Your task to perform on an android device: Open Maps and search for coffee Image 0: 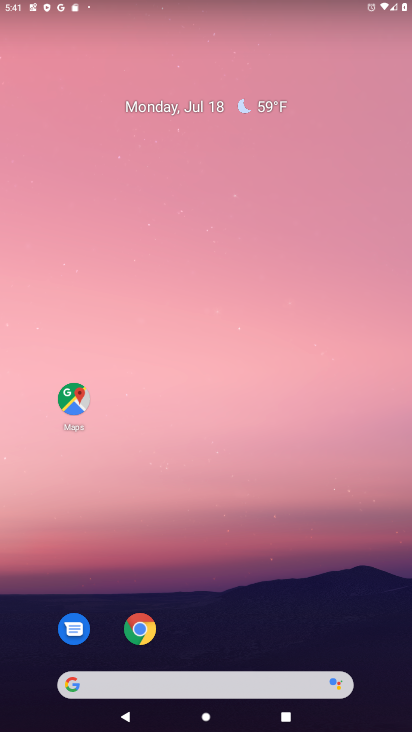
Step 0: drag from (253, 569) to (194, 58)
Your task to perform on an android device: Open Maps and search for coffee Image 1: 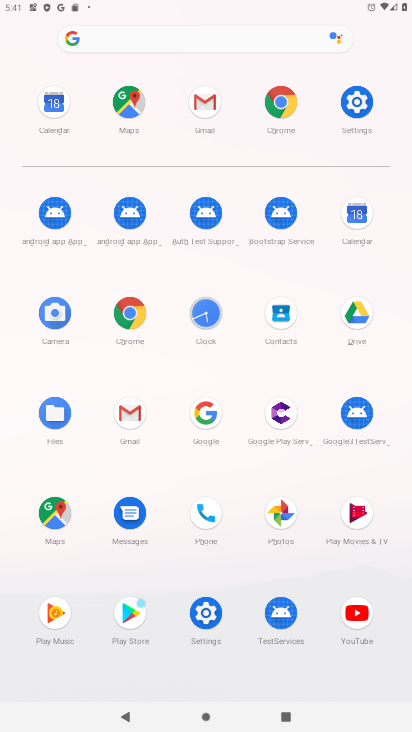
Step 1: click (124, 98)
Your task to perform on an android device: Open Maps and search for coffee Image 2: 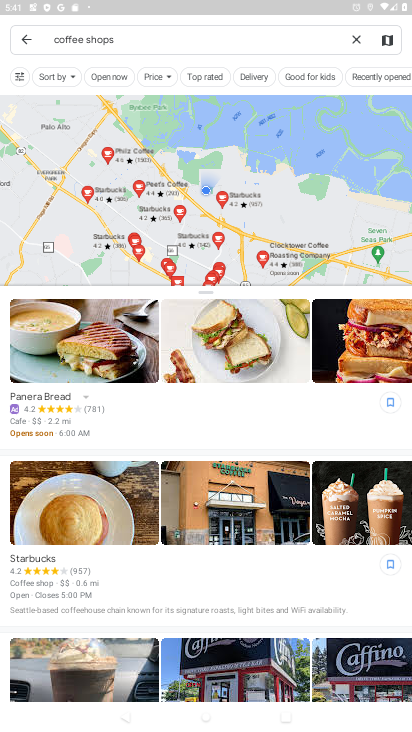
Step 2: click (354, 41)
Your task to perform on an android device: Open Maps and search for coffee Image 3: 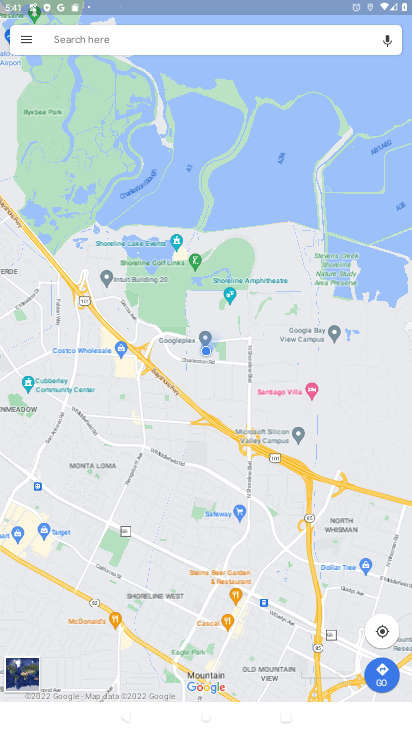
Step 3: click (95, 43)
Your task to perform on an android device: Open Maps and search for coffee Image 4: 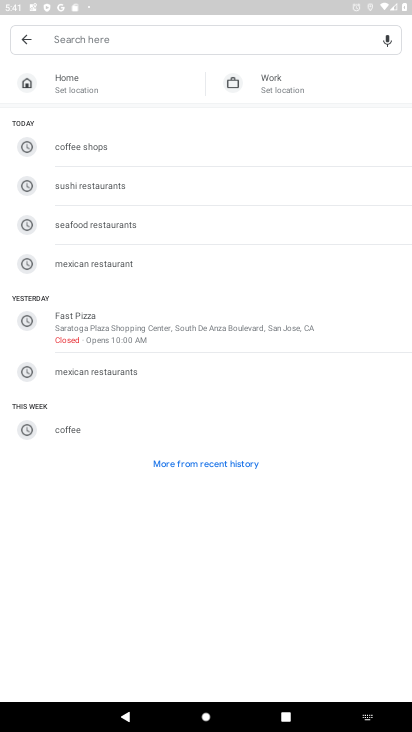
Step 4: type "coffee"
Your task to perform on an android device: Open Maps and search for coffee Image 5: 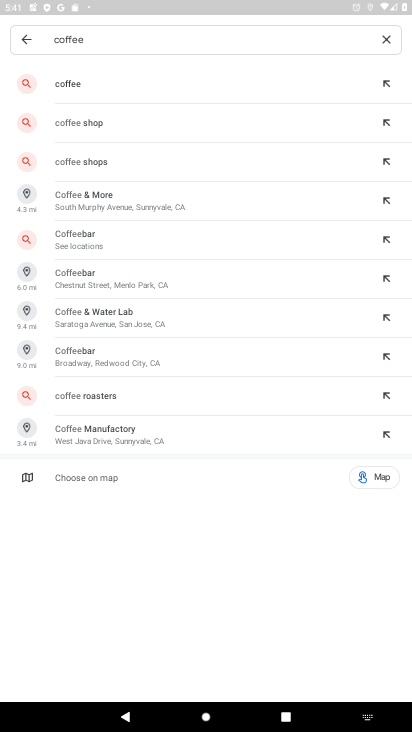
Step 5: click (70, 87)
Your task to perform on an android device: Open Maps and search for coffee Image 6: 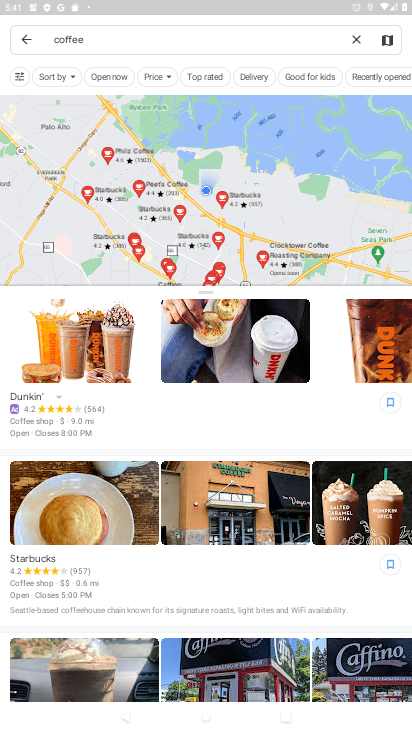
Step 6: task complete